Your task to perform on an android device: Show me popular games on the Play Store Image 0: 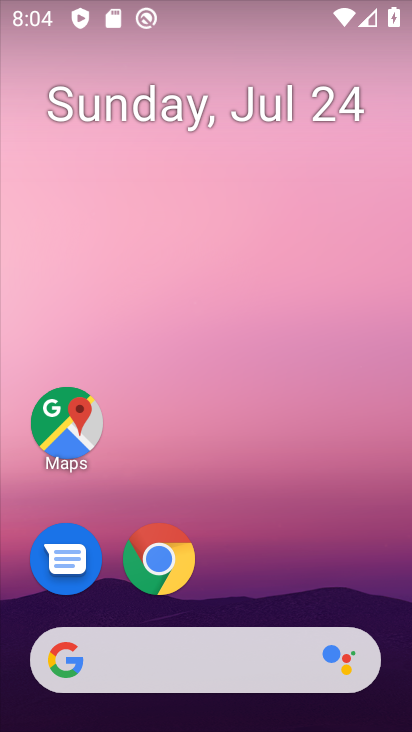
Step 0: press home button
Your task to perform on an android device: Show me popular games on the Play Store Image 1: 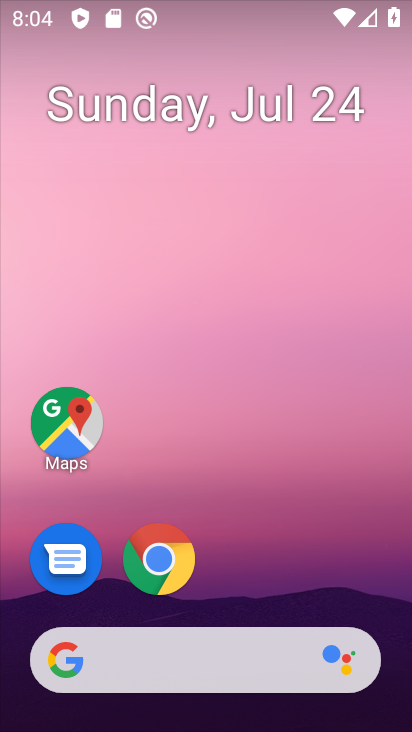
Step 1: drag from (388, 589) to (365, 92)
Your task to perform on an android device: Show me popular games on the Play Store Image 2: 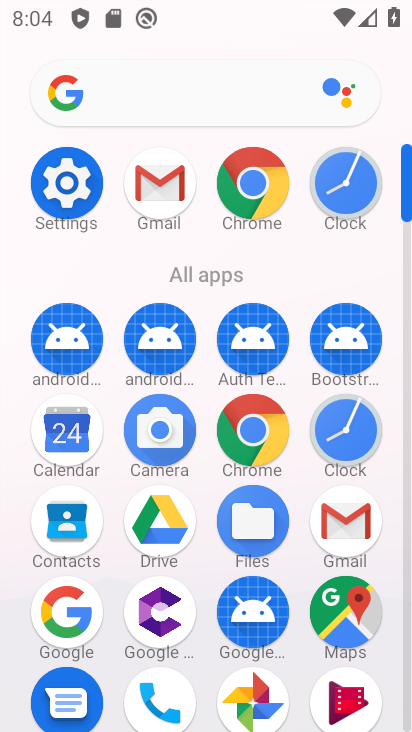
Step 2: drag from (405, 513) to (390, 372)
Your task to perform on an android device: Show me popular games on the Play Store Image 3: 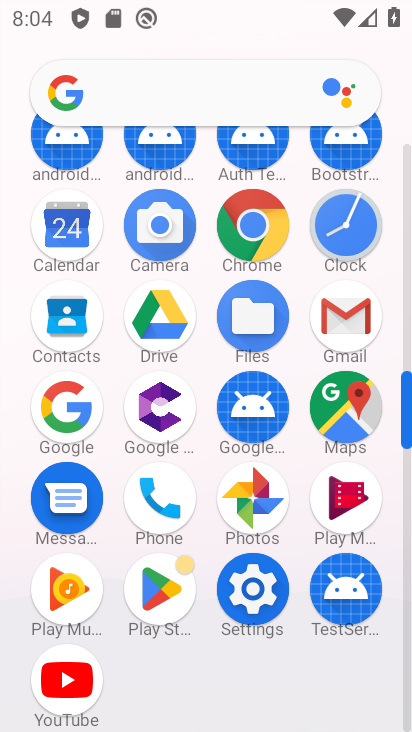
Step 3: click (168, 580)
Your task to perform on an android device: Show me popular games on the Play Store Image 4: 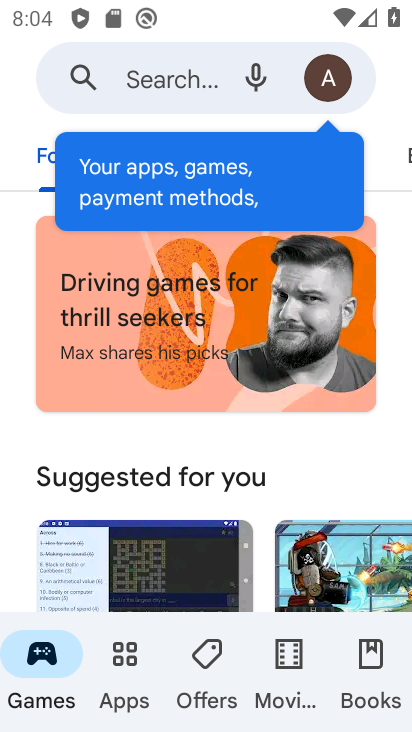
Step 4: task complete